Your task to perform on an android device: Go to wifi settings Image 0: 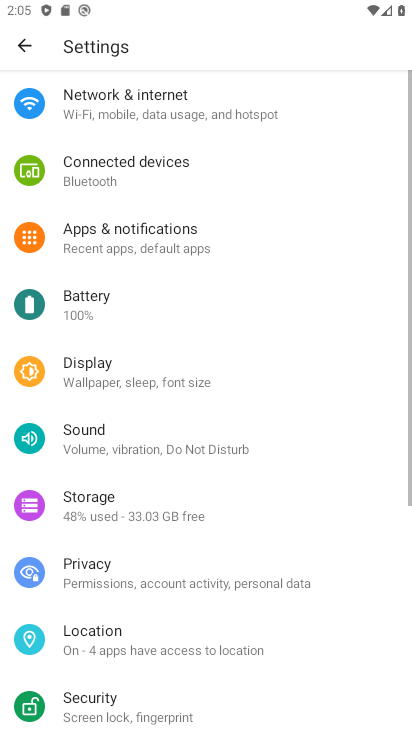
Step 0: click (191, 99)
Your task to perform on an android device: Go to wifi settings Image 1: 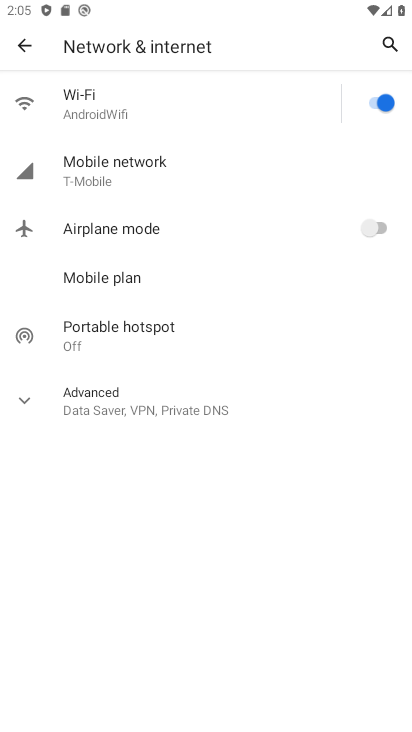
Step 1: click (156, 103)
Your task to perform on an android device: Go to wifi settings Image 2: 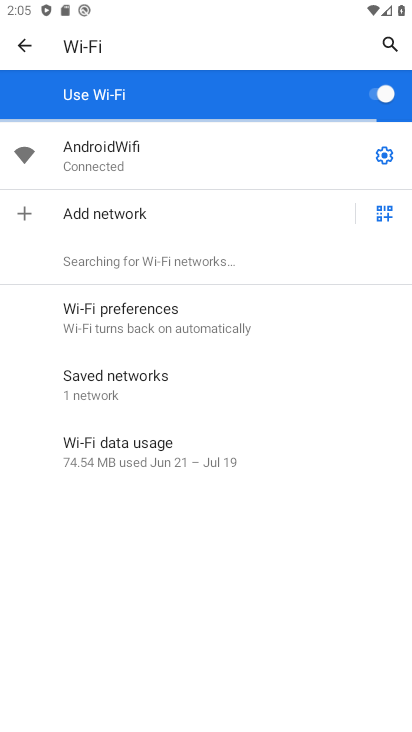
Step 2: task complete